Your task to perform on an android device: Go to Reddit.com Image 0: 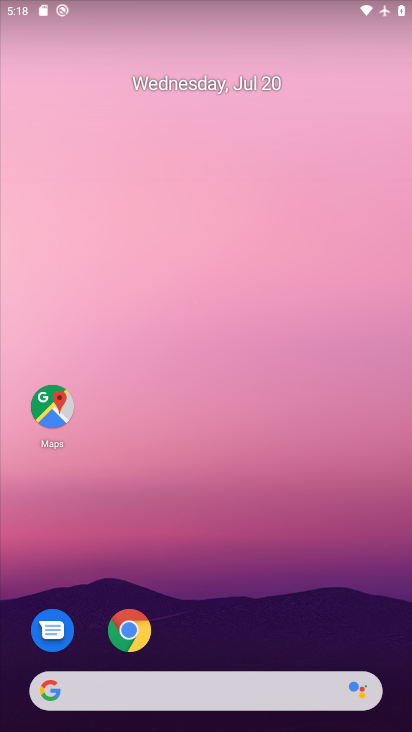
Step 0: press home button
Your task to perform on an android device: Go to Reddit.com Image 1: 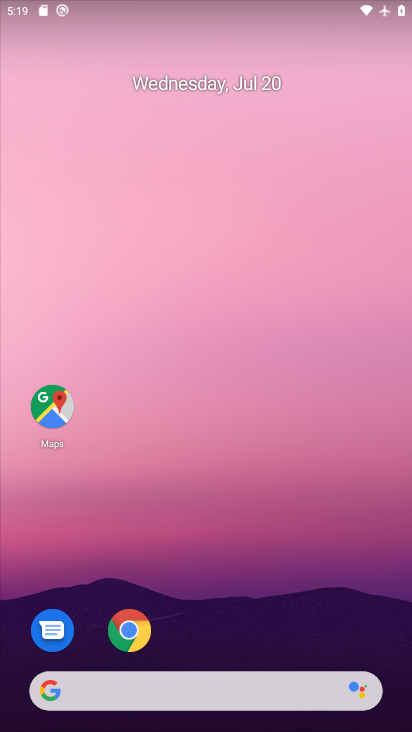
Step 1: click (58, 690)
Your task to perform on an android device: Go to Reddit.com Image 2: 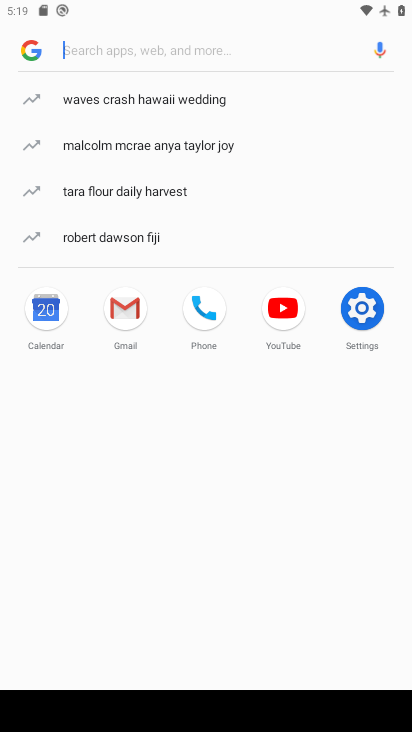
Step 2: type " Reddit.com"
Your task to perform on an android device: Go to Reddit.com Image 3: 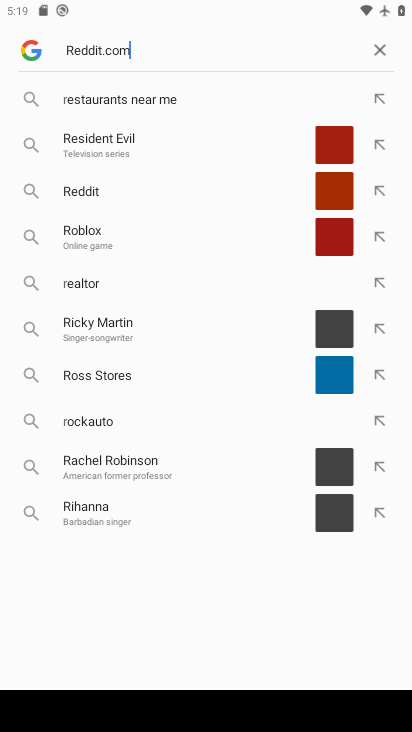
Step 3: press enter
Your task to perform on an android device: Go to Reddit.com Image 4: 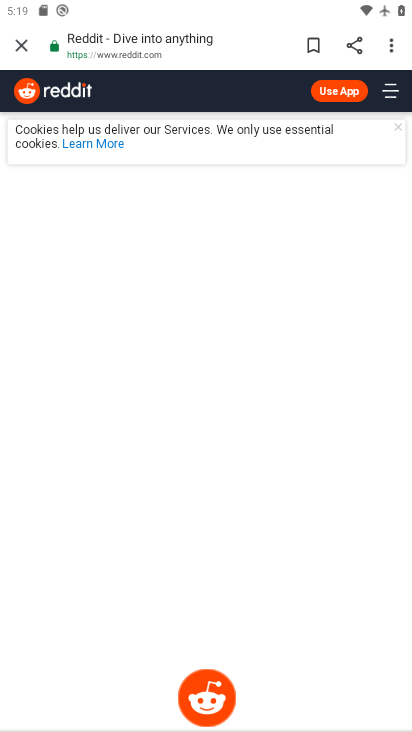
Step 4: task complete